Your task to perform on an android device: choose inbox layout in the gmail app Image 0: 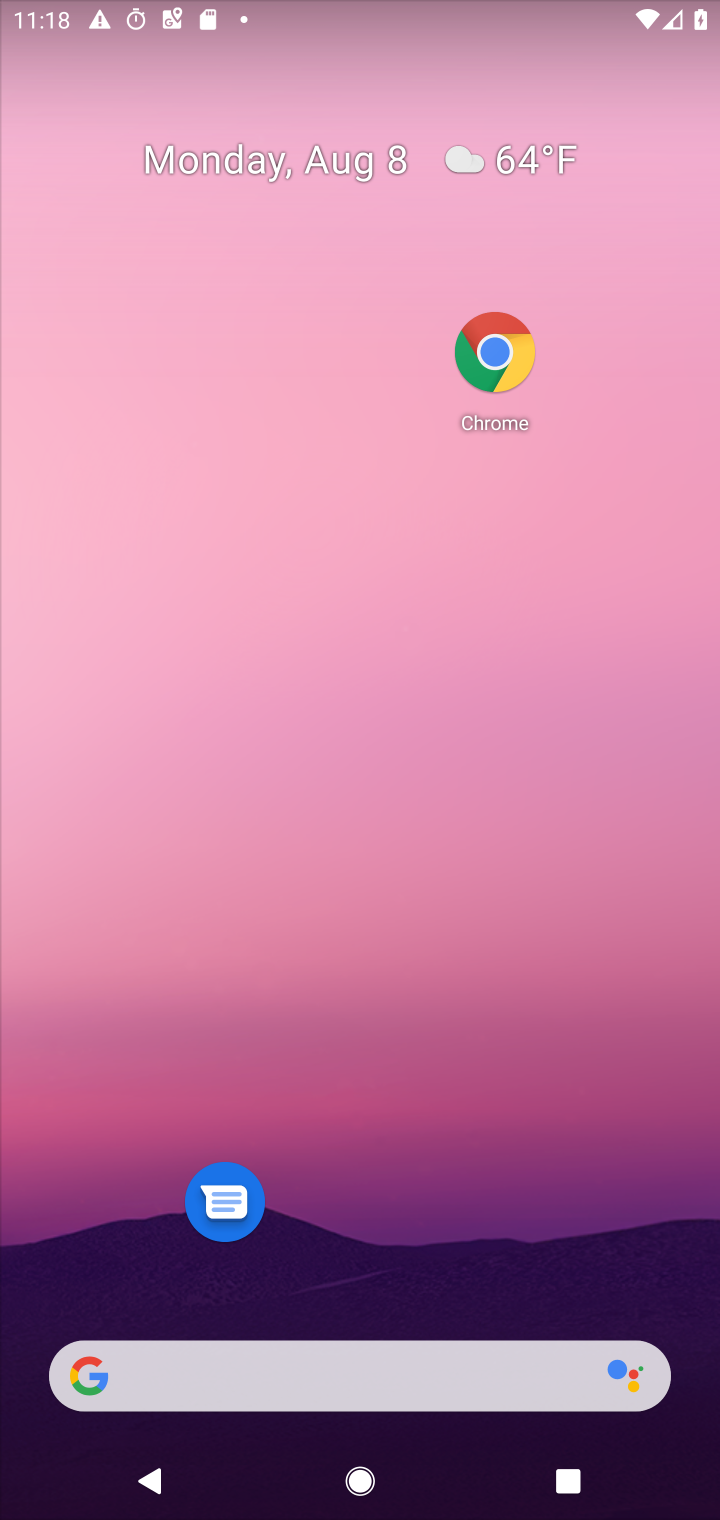
Step 0: drag from (314, 862) to (323, 157)
Your task to perform on an android device: choose inbox layout in the gmail app Image 1: 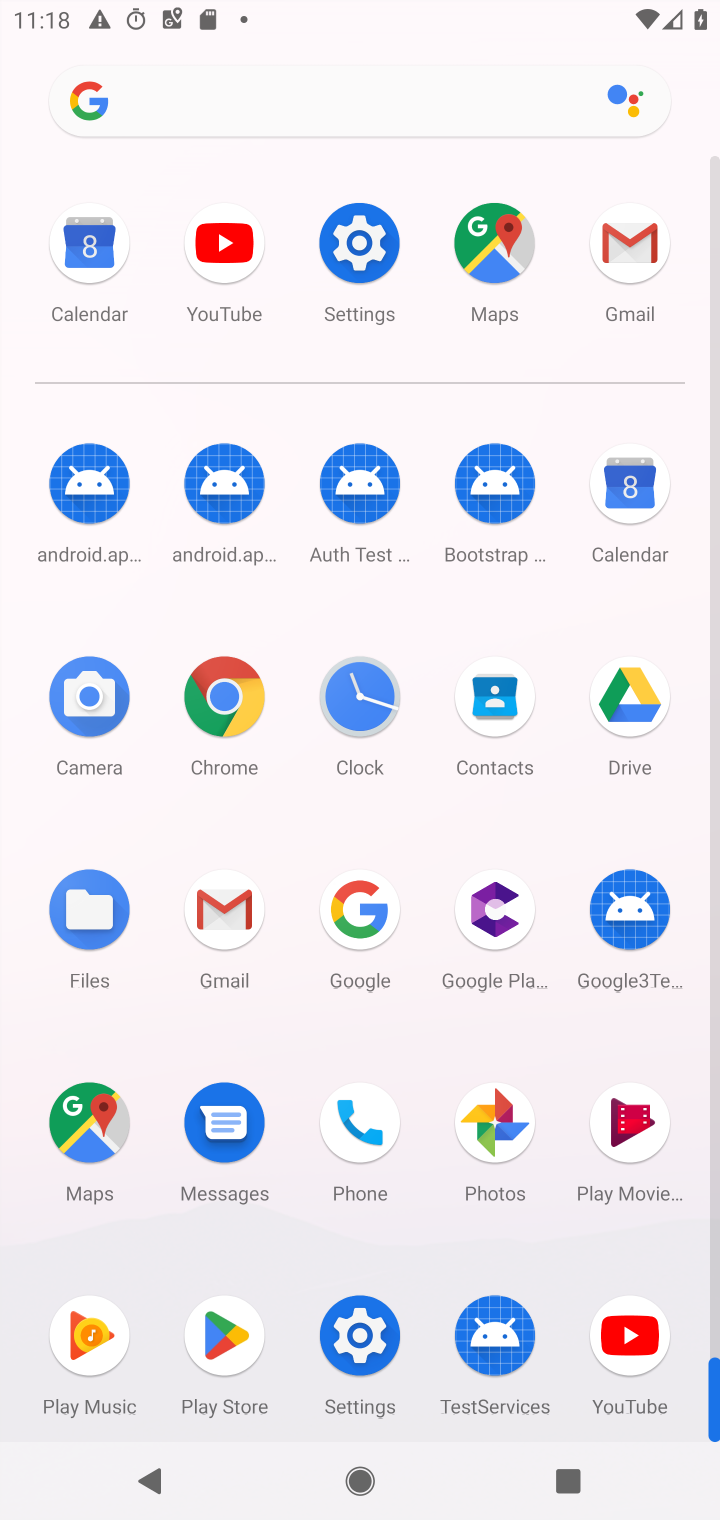
Step 1: click (242, 928)
Your task to perform on an android device: choose inbox layout in the gmail app Image 2: 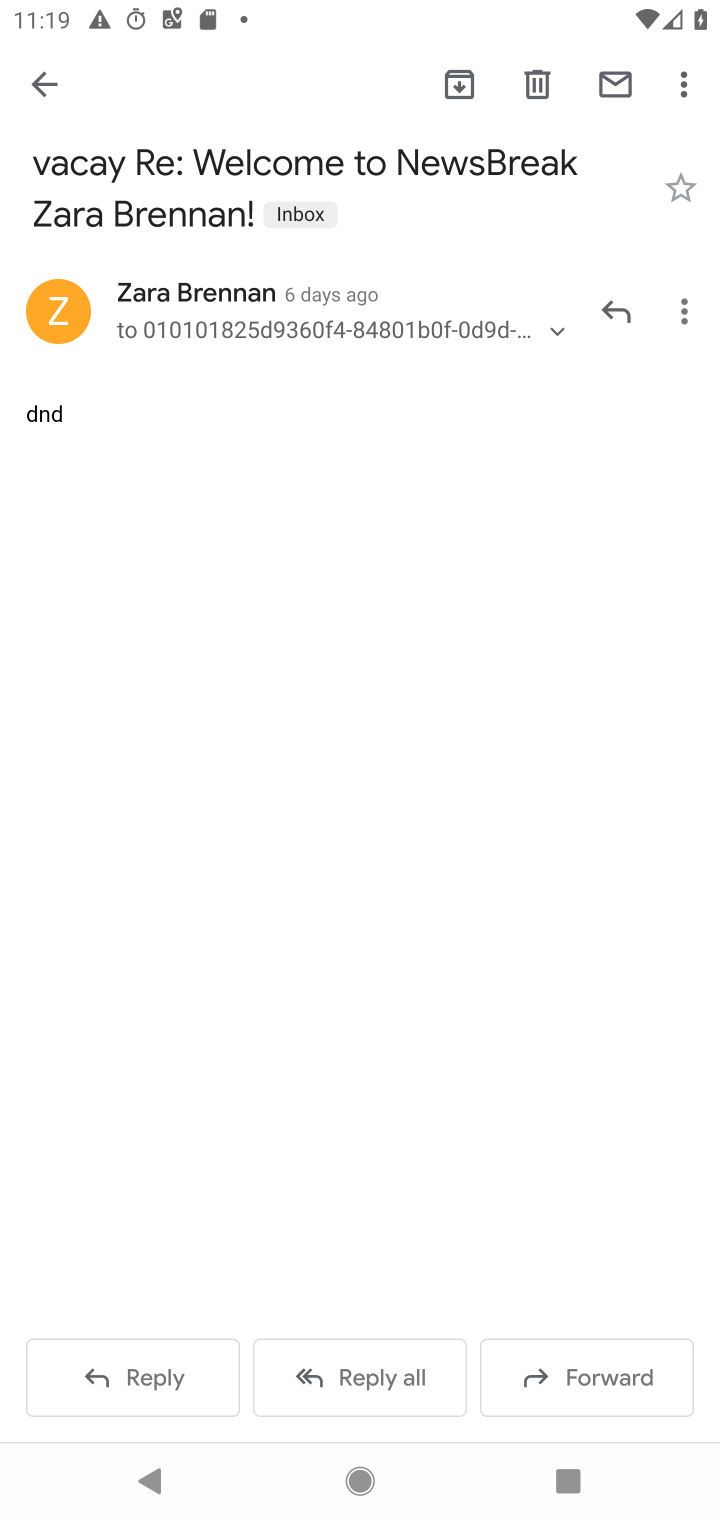
Step 2: click (47, 106)
Your task to perform on an android device: choose inbox layout in the gmail app Image 3: 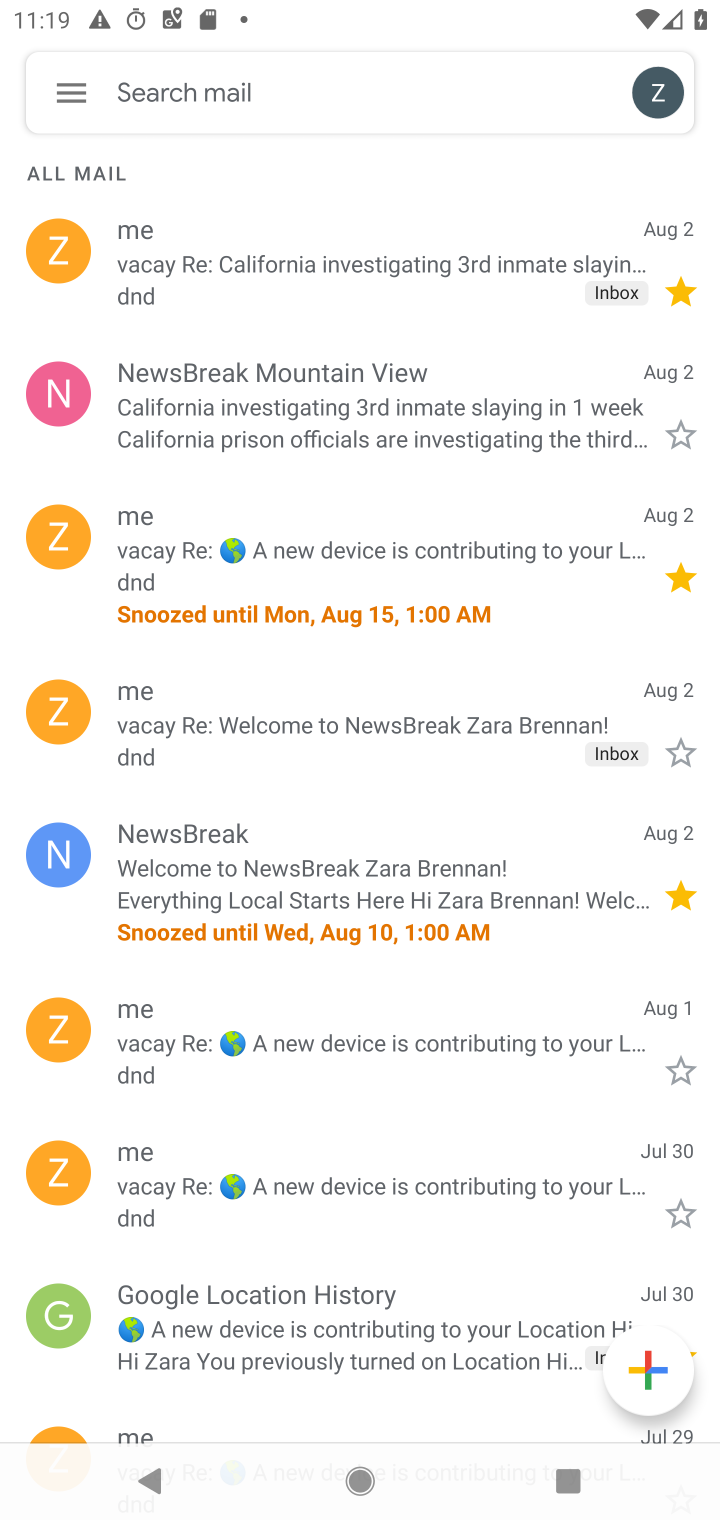
Step 3: task complete